Your task to perform on an android device: Search for pizza restaurants on Maps Image 0: 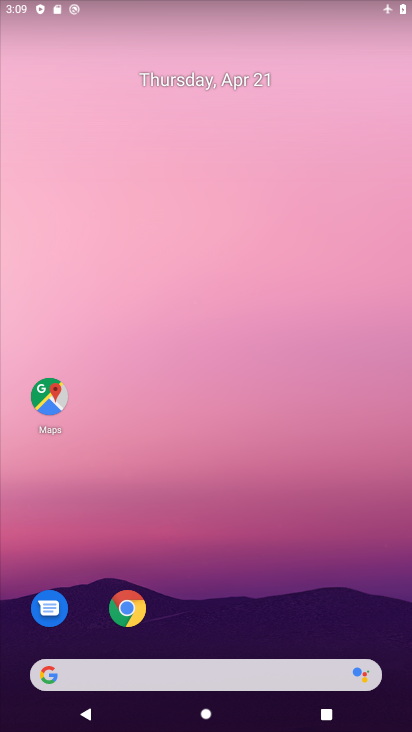
Step 0: click (49, 380)
Your task to perform on an android device: Search for pizza restaurants on Maps Image 1: 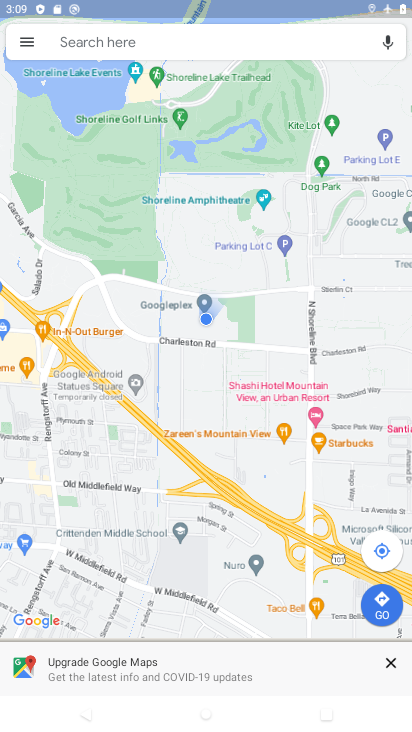
Step 1: click (112, 47)
Your task to perform on an android device: Search for pizza restaurants on Maps Image 2: 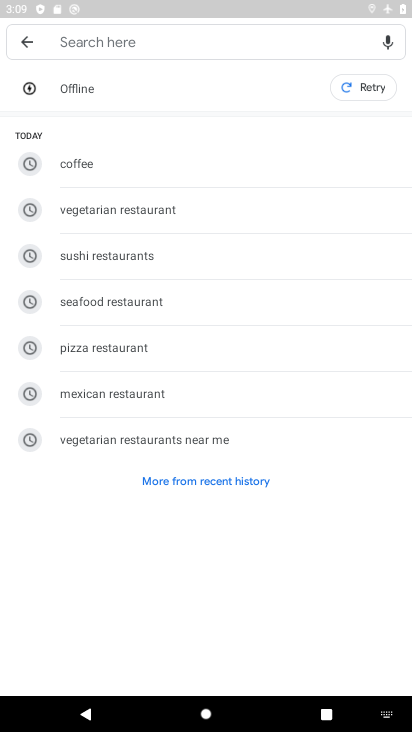
Step 2: click (90, 351)
Your task to perform on an android device: Search for pizza restaurants on Maps Image 3: 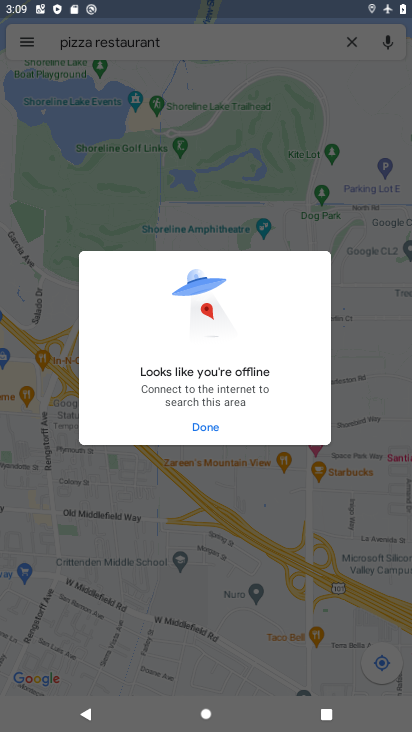
Step 3: task complete